Your task to perform on an android device: Open eBay Image 0: 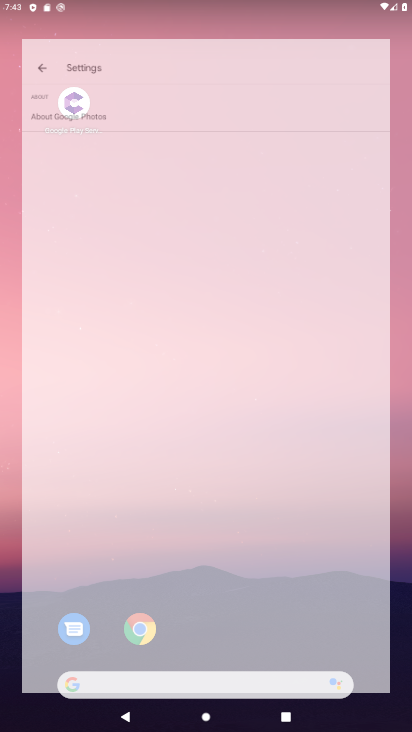
Step 0: drag from (214, 652) to (202, 122)
Your task to perform on an android device: Open eBay Image 1: 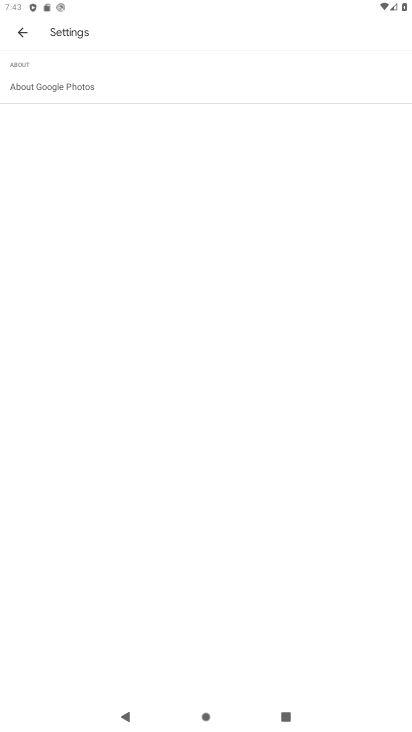
Step 1: press home button
Your task to perform on an android device: Open eBay Image 2: 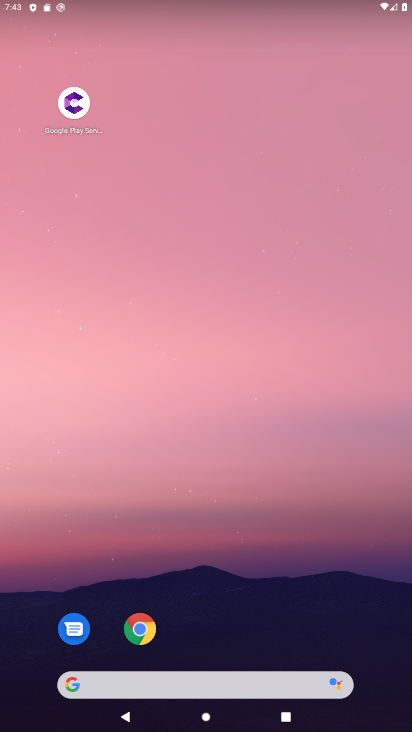
Step 2: drag from (225, 646) to (237, 10)
Your task to perform on an android device: Open eBay Image 3: 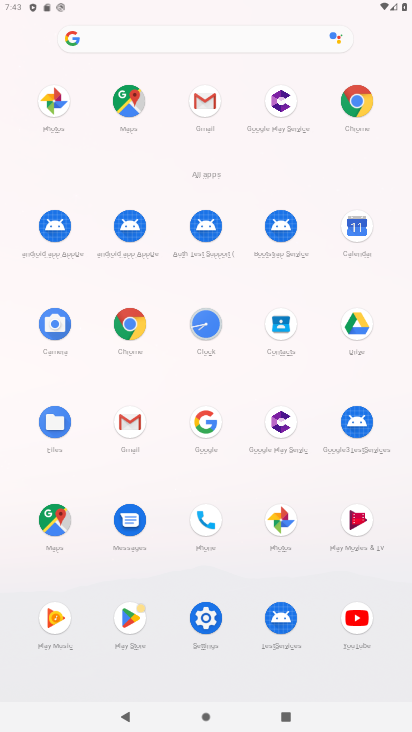
Step 3: click (128, 340)
Your task to perform on an android device: Open eBay Image 4: 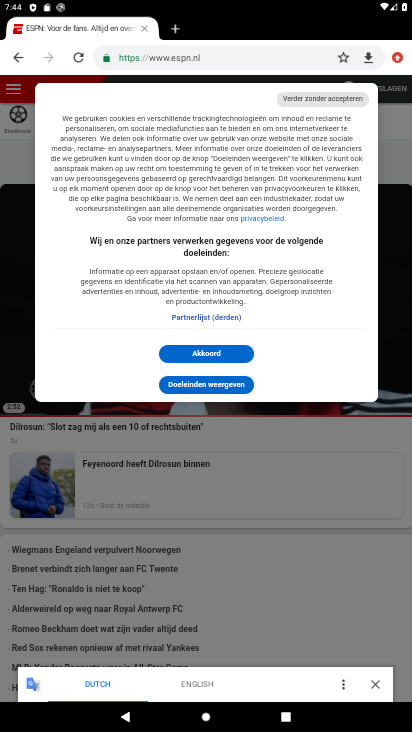
Step 4: click (314, 448)
Your task to perform on an android device: Open eBay Image 5: 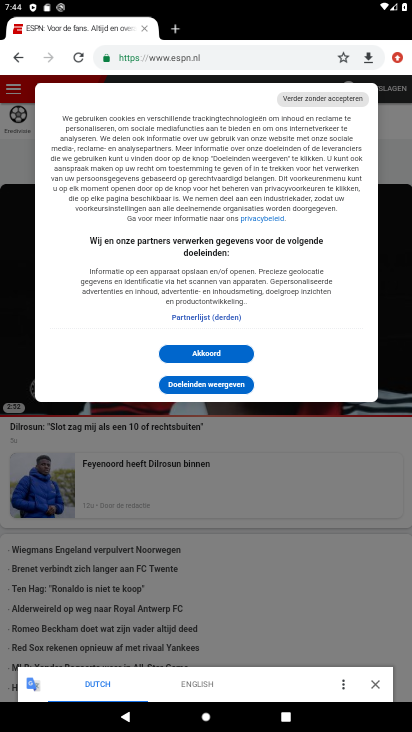
Step 5: click (236, 358)
Your task to perform on an android device: Open eBay Image 6: 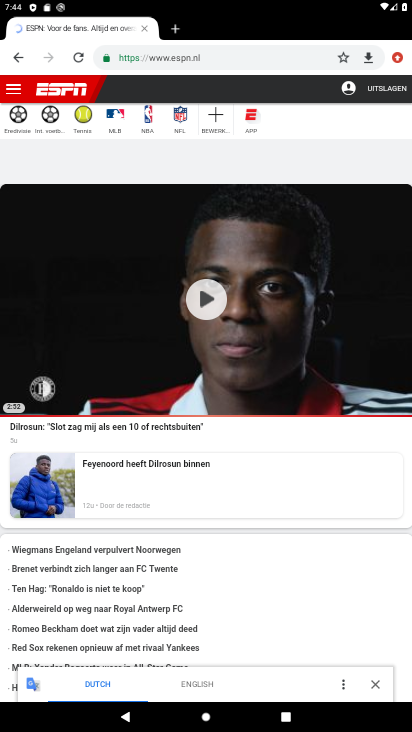
Step 6: click (171, 21)
Your task to perform on an android device: Open eBay Image 7: 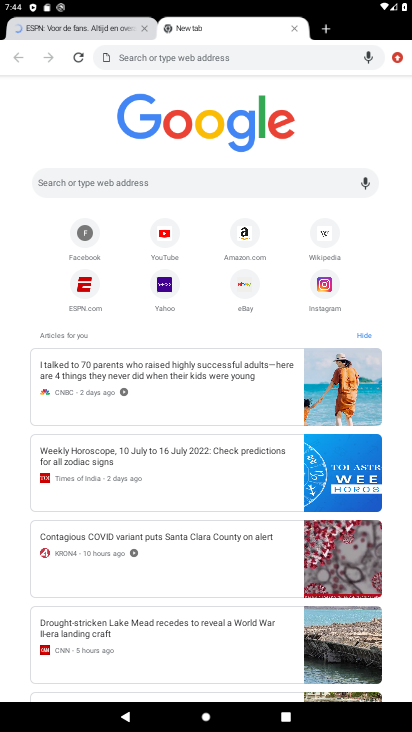
Step 7: click (238, 289)
Your task to perform on an android device: Open eBay Image 8: 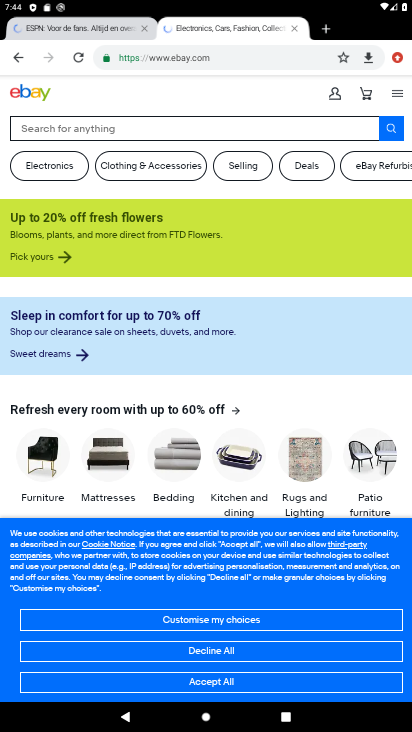
Step 8: task complete